Your task to perform on an android device: Check the weather Image 0: 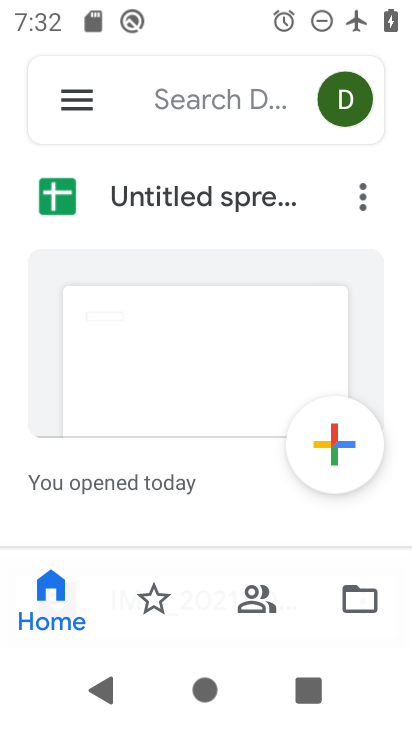
Step 0: press home button
Your task to perform on an android device: Check the weather Image 1: 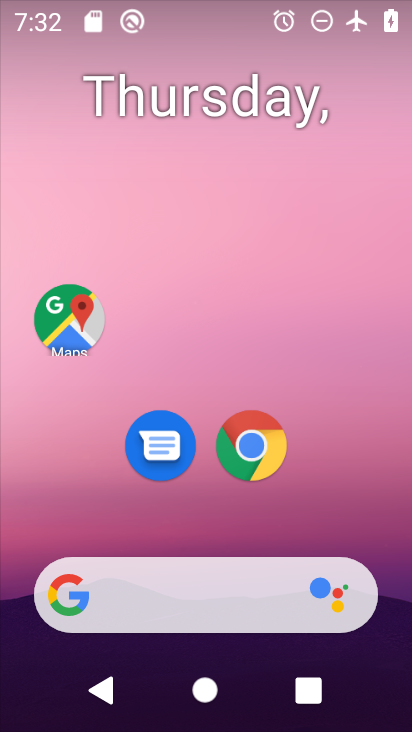
Step 1: click (205, 576)
Your task to perform on an android device: Check the weather Image 2: 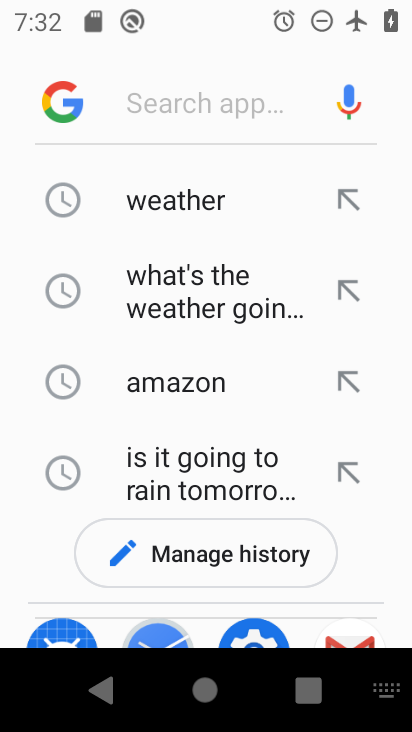
Step 2: click (159, 201)
Your task to perform on an android device: Check the weather Image 3: 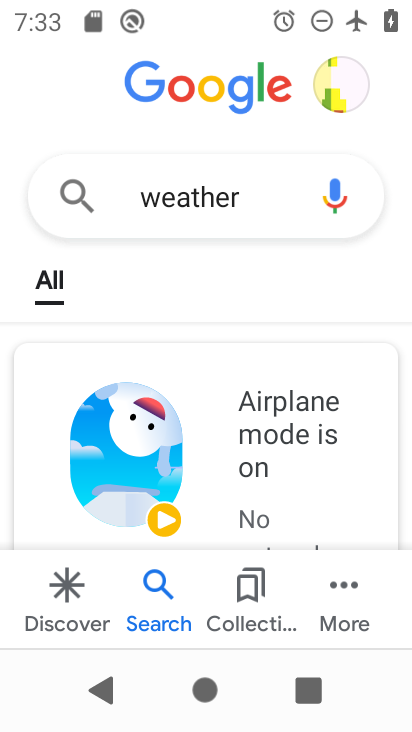
Step 3: task complete